Your task to perform on an android device: Show me the alarms in the clock app Image 0: 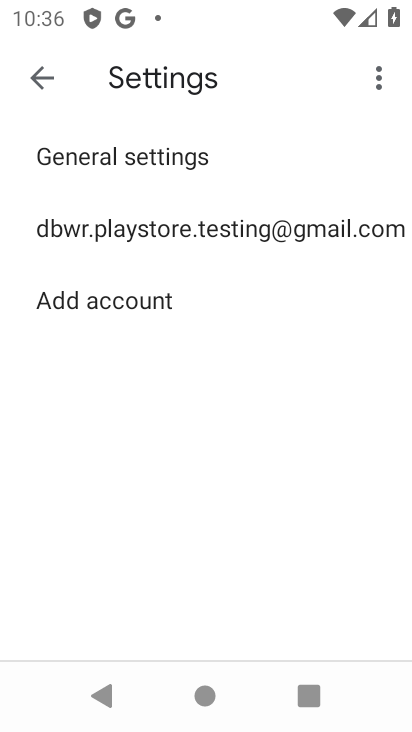
Step 0: press home button
Your task to perform on an android device: Show me the alarms in the clock app Image 1: 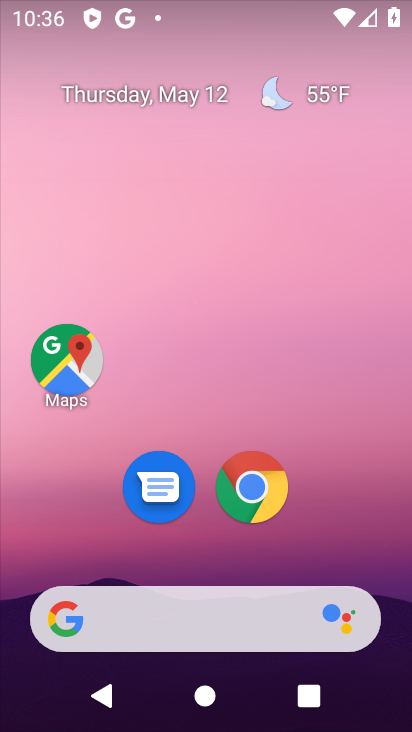
Step 1: drag from (346, 531) to (325, 0)
Your task to perform on an android device: Show me the alarms in the clock app Image 2: 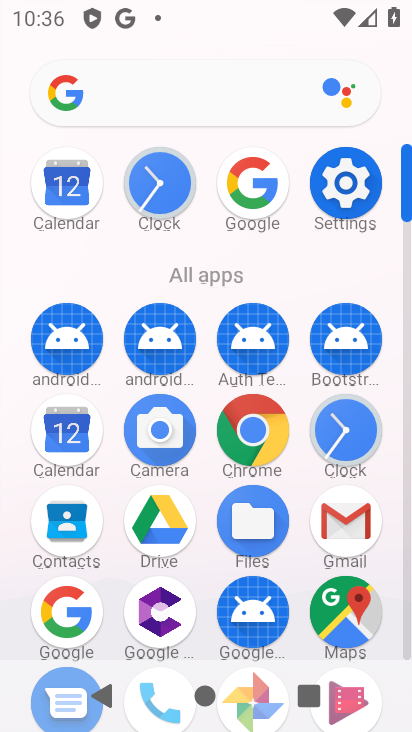
Step 2: click (153, 209)
Your task to perform on an android device: Show me the alarms in the clock app Image 3: 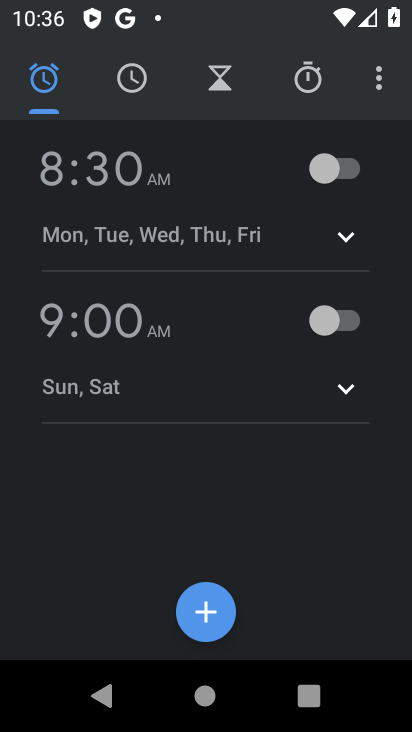
Step 3: task complete